Your task to perform on an android device: toggle notifications settings in the gmail app Image 0: 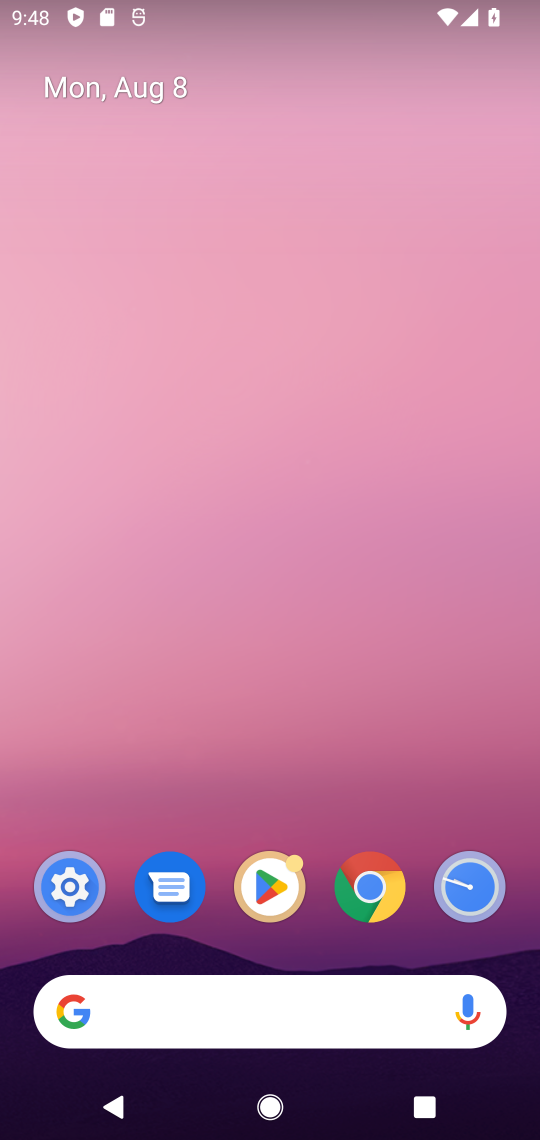
Step 0: drag from (329, 803) to (489, 130)
Your task to perform on an android device: toggle notifications settings in the gmail app Image 1: 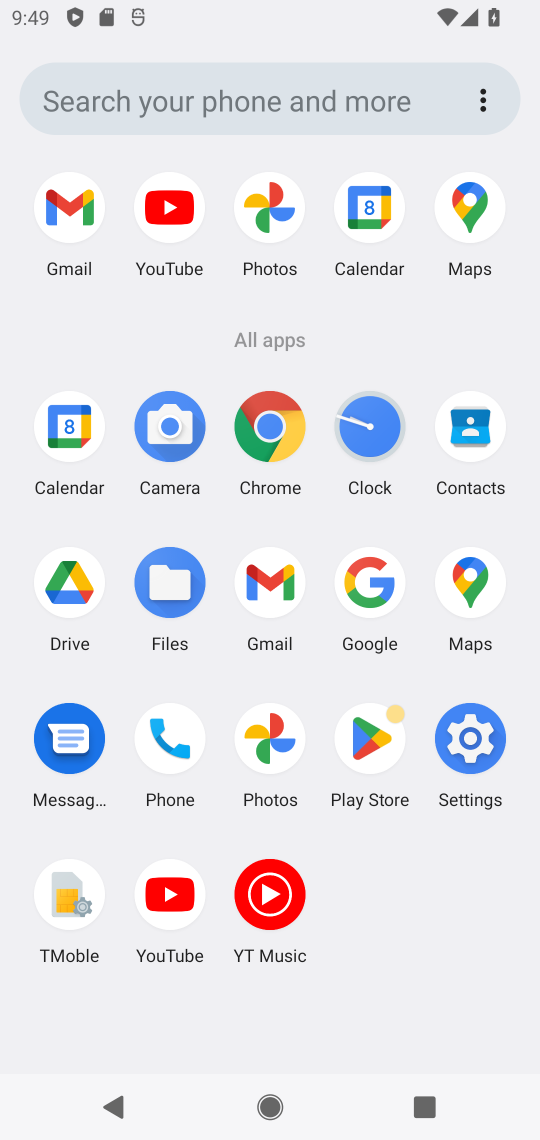
Step 1: click (276, 588)
Your task to perform on an android device: toggle notifications settings in the gmail app Image 2: 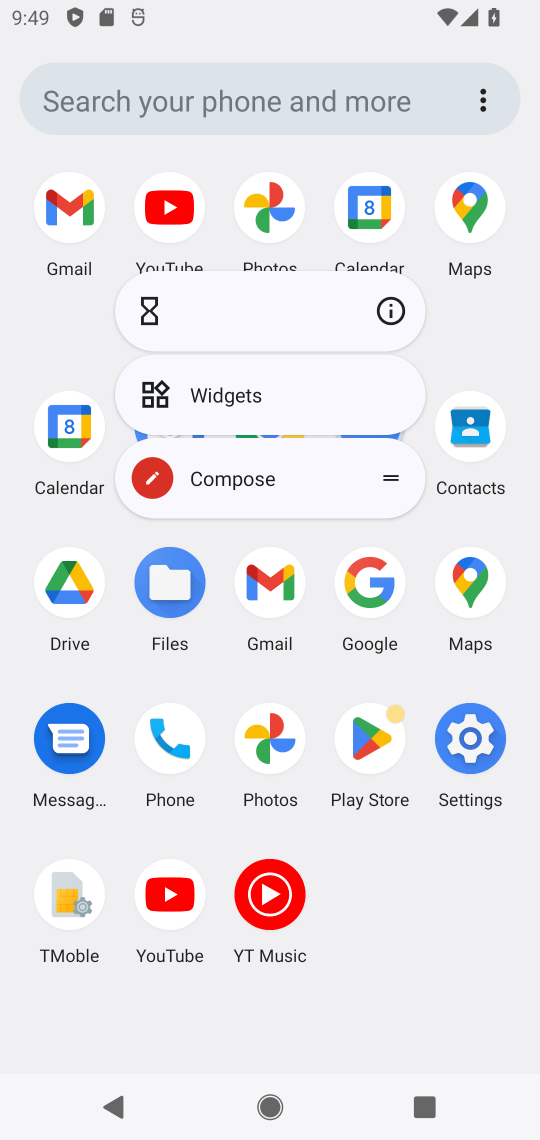
Step 2: click (276, 588)
Your task to perform on an android device: toggle notifications settings in the gmail app Image 3: 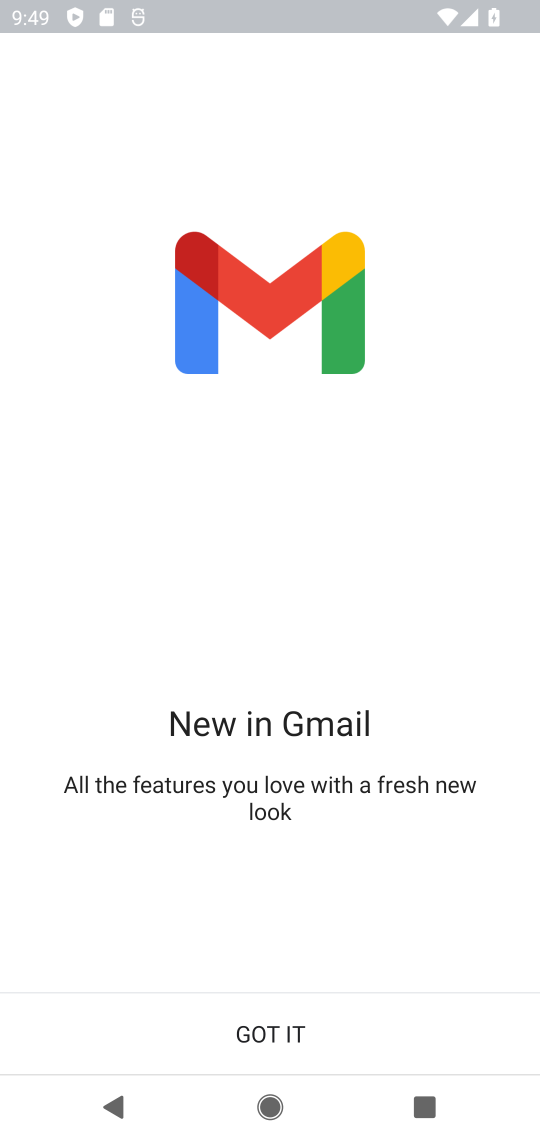
Step 3: click (285, 1015)
Your task to perform on an android device: toggle notifications settings in the gmail app Image 4: 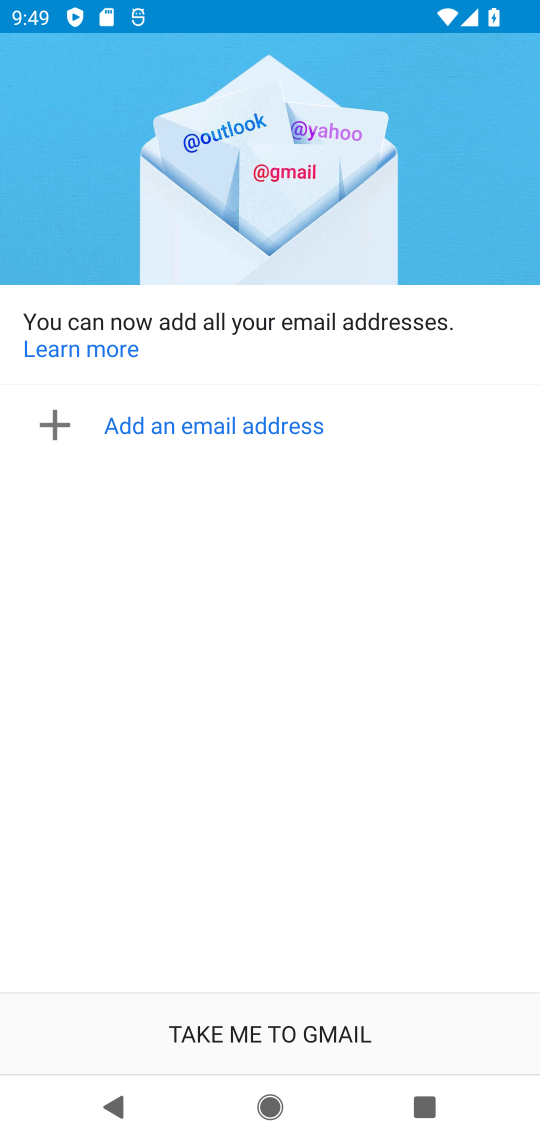
Step 4: click (299, 1034)
Your task to perform on an android device: toggle notifications settings in the gmail app Image 5: 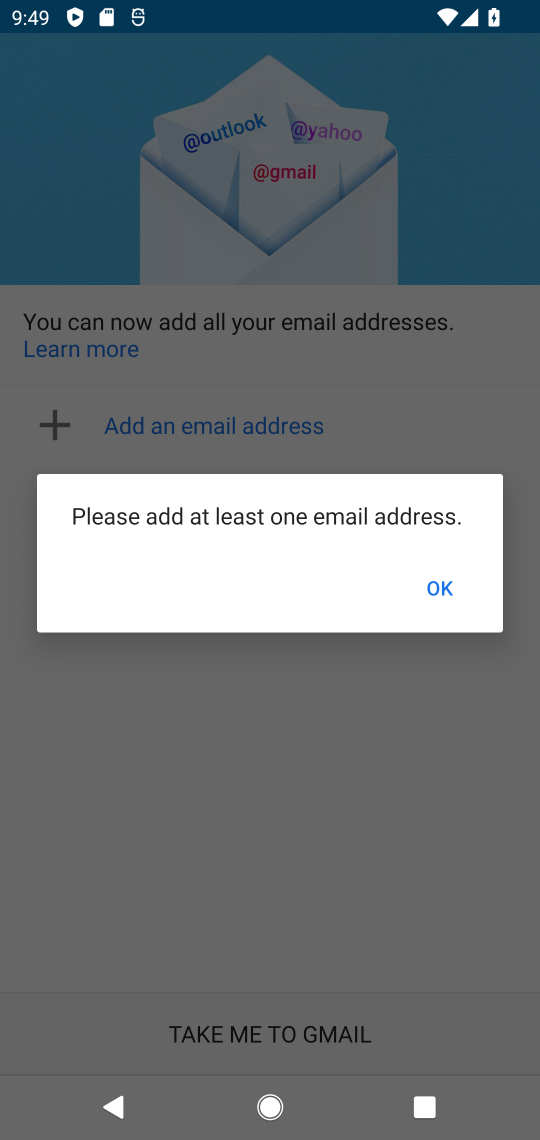
Step 5: task complete